Your task to perform on an android device: visit the assistant section in the google photos Image 0: 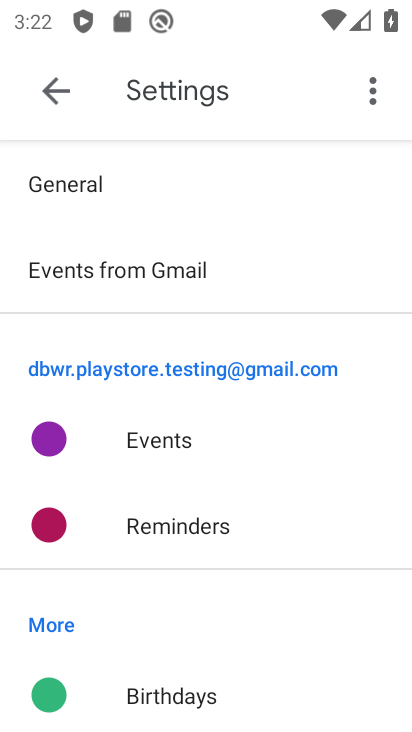
Step 0: press home button
Your task to perform on an android device: visit the assistant section in the google photos Image 1: 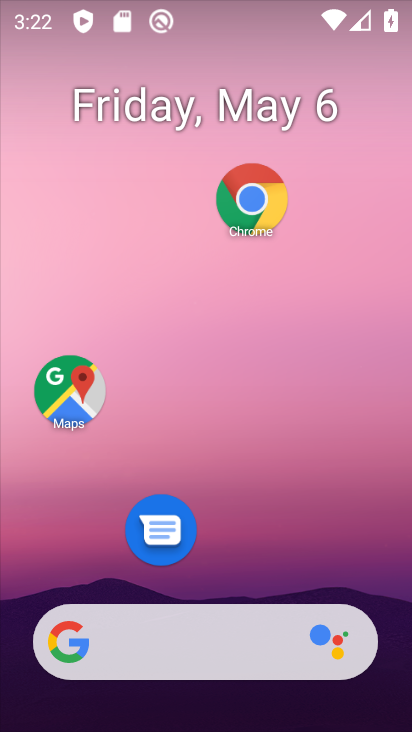
Step 1: drag from (223, 665) to (236, 199)
Your task to perform on an android device: visit the assistant section in the google photos Image 2: 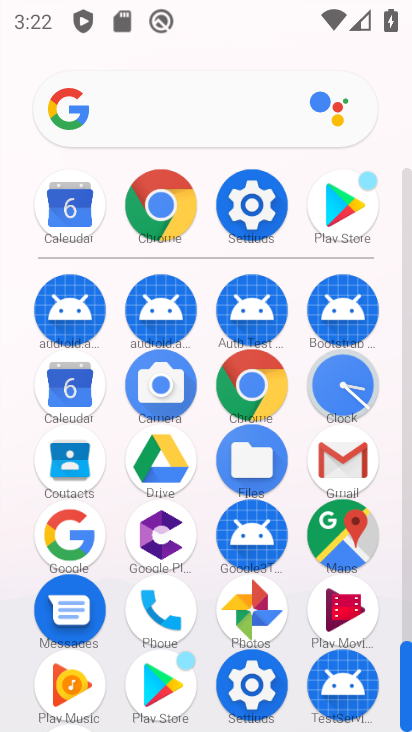
Step 2: click (254, 598)
Your task to perform on an android device: visit the assistant section in the google photos Image 3: 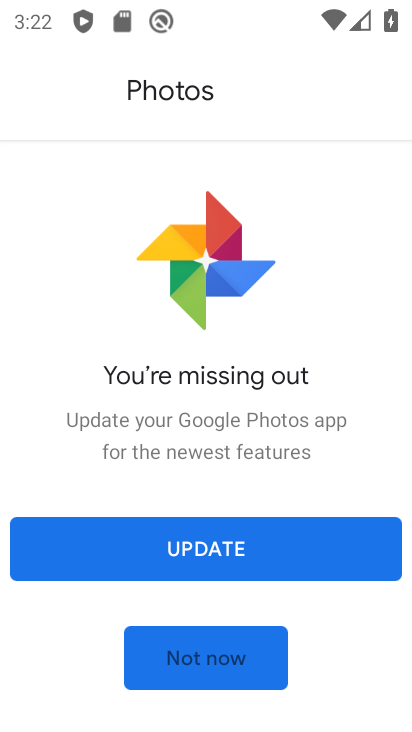
Step 3: click (208, 671)
Your task to perform on an android device: visit the assistant section in the google photos Image 4: 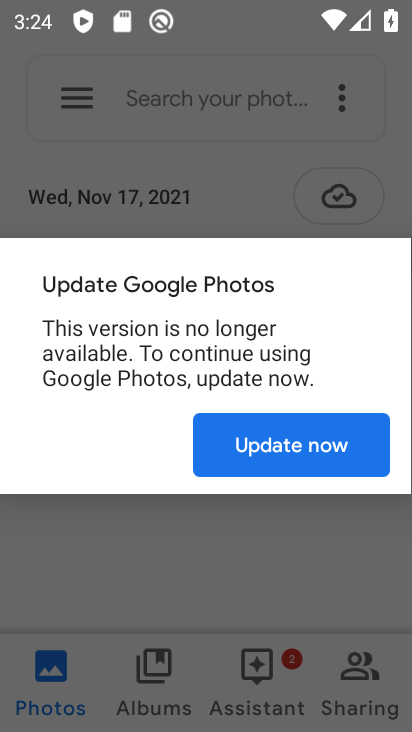
Step 4: task complete